Your task to perform on an android device: Turn on the flashlight Image 0: 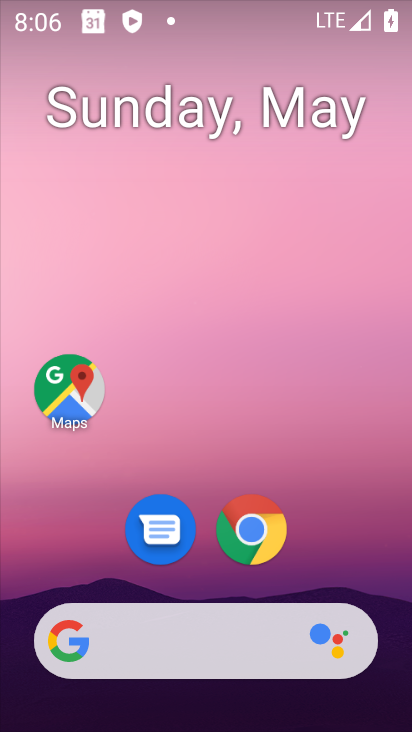
Step 0: drag from (193, 571) to (277, 69)
Your task to perform on an android device: Turn on the flashlight Image 1: 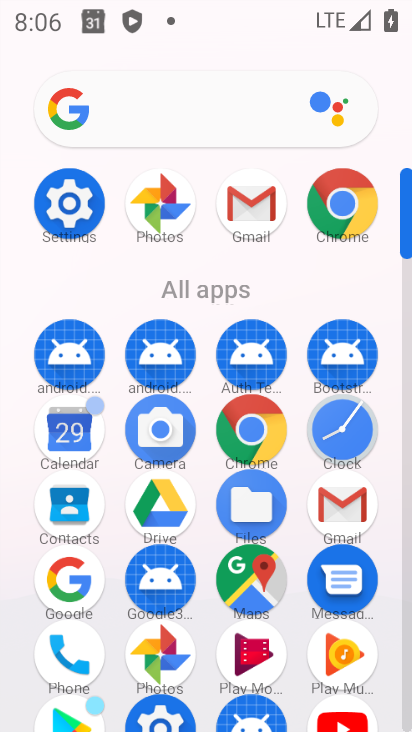
Step 1: click (79, 198)
Your task to perform on an android device: Turn on the flashlight Image 2: 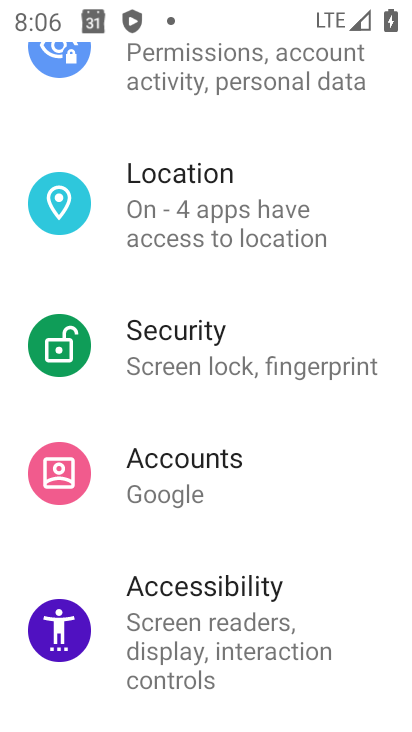
Step 2: drag from (252, 109) to (213, 658)
Your task to perform on an android device: Turn on the flashlight Image 3: 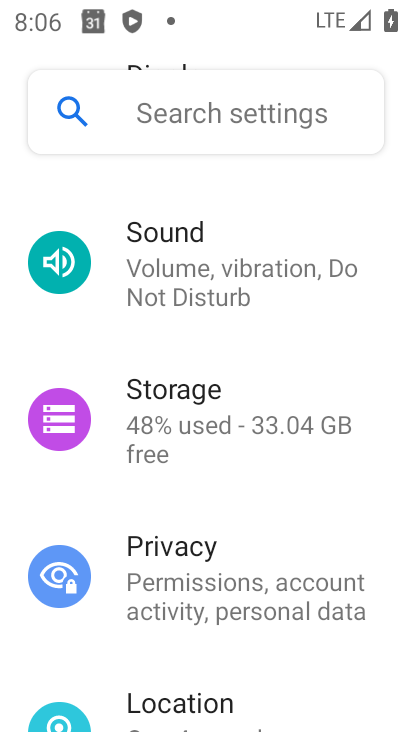
Step 3: click (170, 105)
Your task to perform on an android device: Turn on the flashlight Image 4: 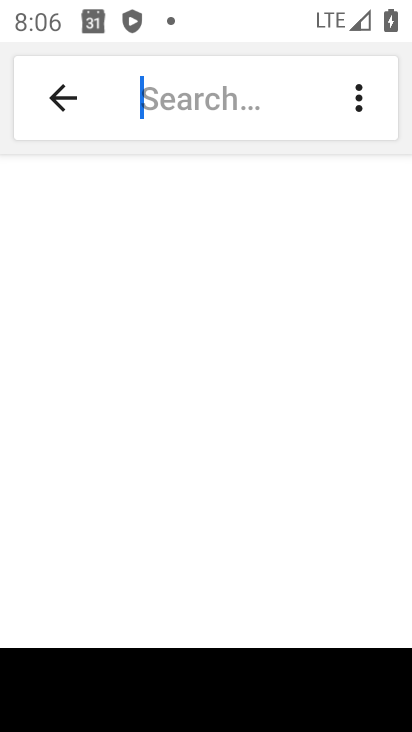
Step 4: type "flashlight"
Your task to perform on an android device: Turn on the flashlight Image 5: 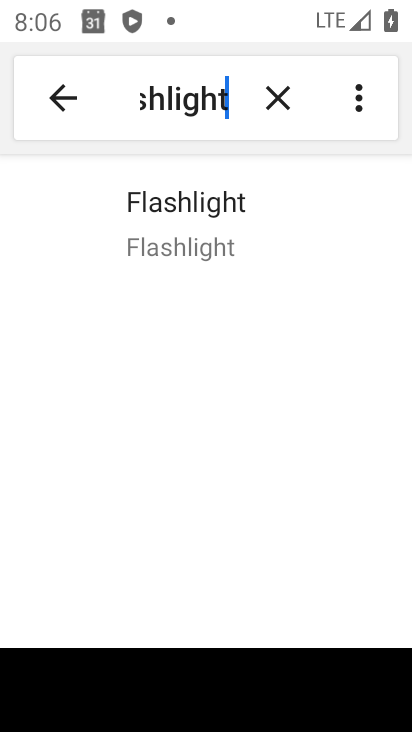
Step 5: click (196, 237)
Your task to perform on an android device: Turn on the flashlight Image 6: 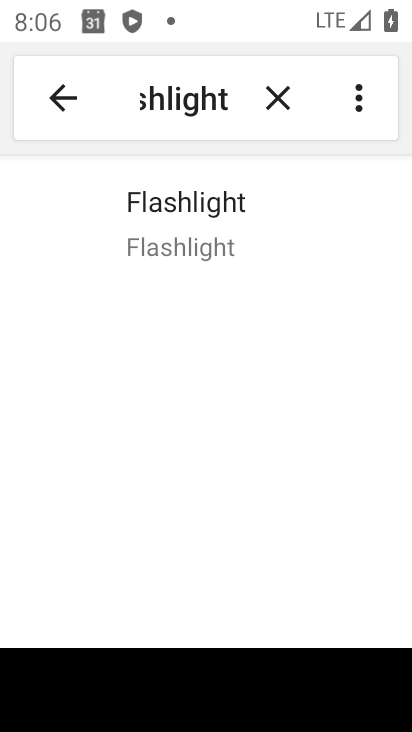
Step 6: task complete